Your task to perform on an android device: Search for seafood restaurants on Google Maps Image 0: 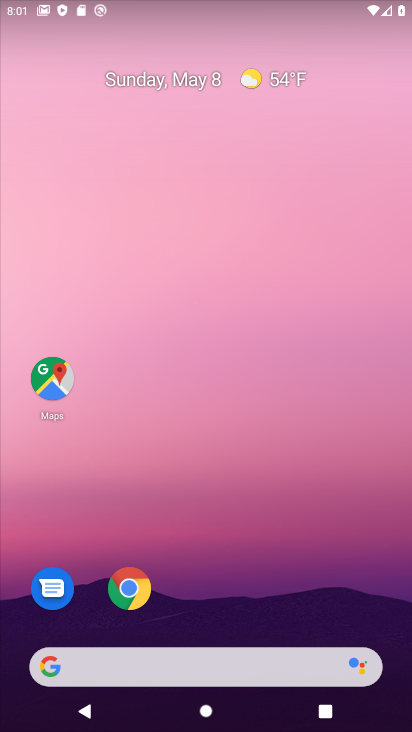
Step 0: click (38, 383)
Your task to perform on an android device: Search for seafood restaurants on Google Maps Image 1: 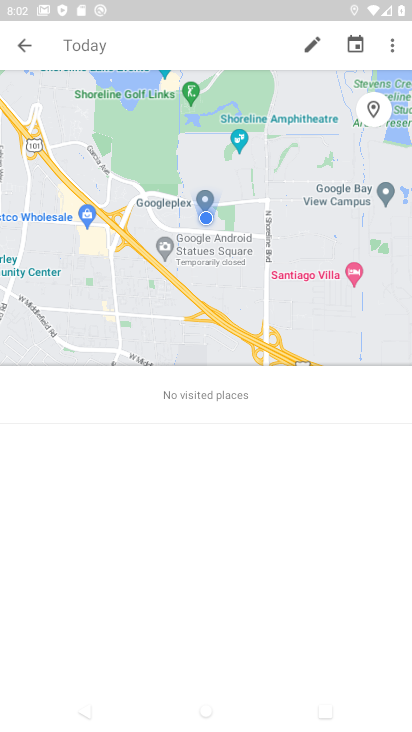
Step 1: click (24, 40)
Your task to perform on an android device: Search for seafood restaurants on Google Maps Image 2: 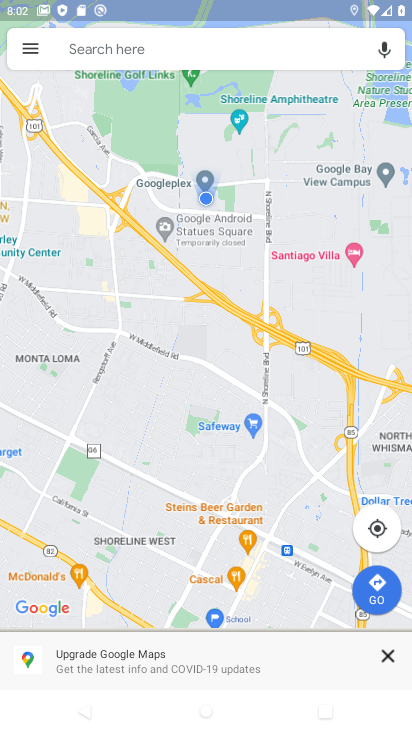
Step 2: click (150, 45)
Your task to perform on an android device: Search for seafood restaurants on Google Maps Image 3: 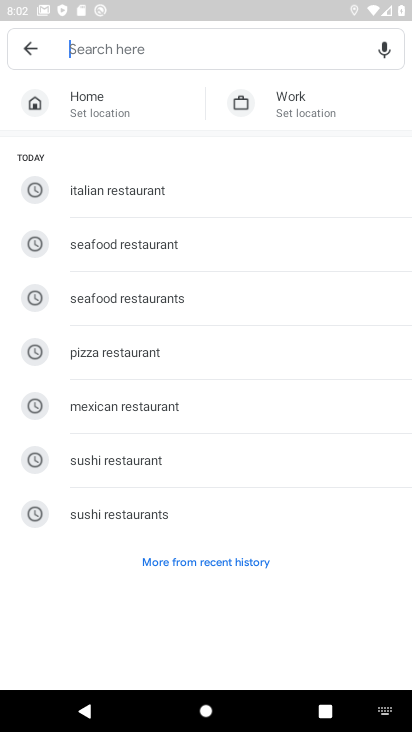
Step 3: click (179, 250)
Your task to perform on an android device: Search for seafood restaurants on Google Maps Image 4: 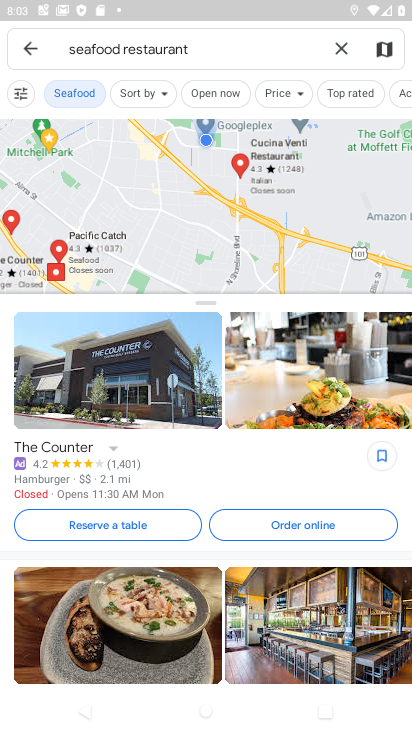
Step 4: task complete